Your task to perform on an android device: Open Yahoo.com Image 0: 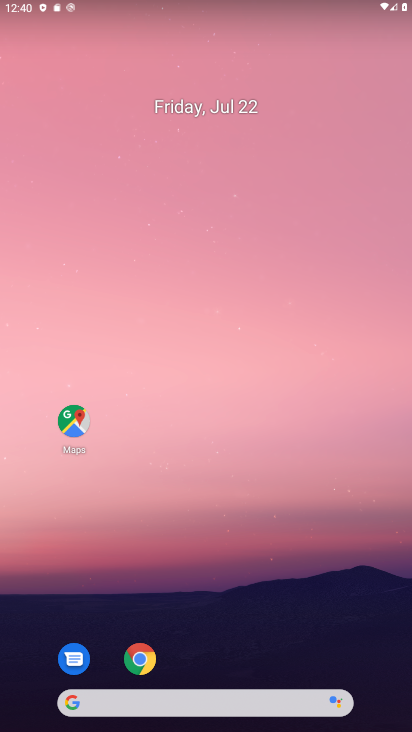
Step 0: click (131, 675)
Your task to perform on an android device: Open Yahoo.com Image 1: 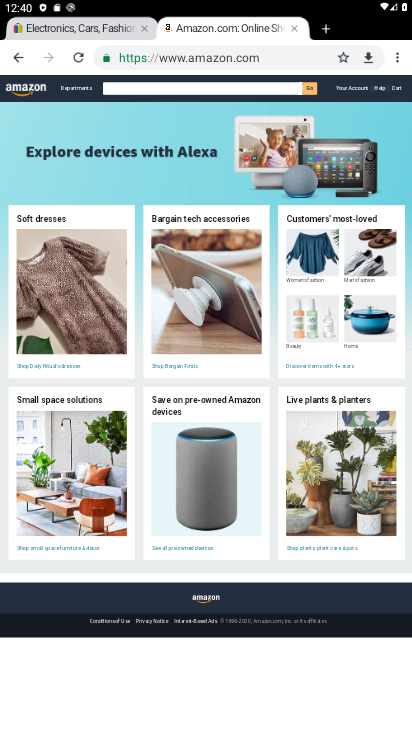
Step 1: click (323, 27)
Your task to perform on an android device: Open Yahoo.com Image 2: 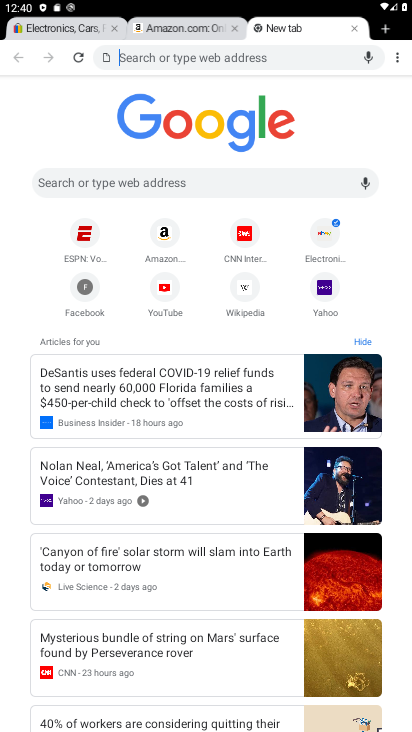
Step 2: type "yahoo.com"
Your task to perform on an android device: Open Yahoo.com Image 3: 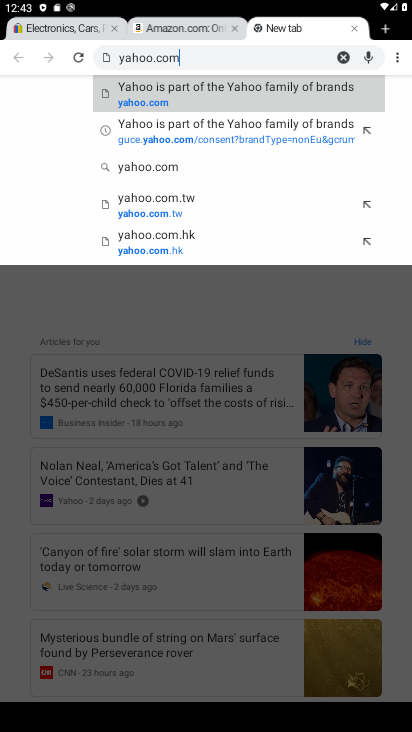
Step 3: click (209, 88)
Your task to perform on an android device: Open Yahoo.com Image 4: 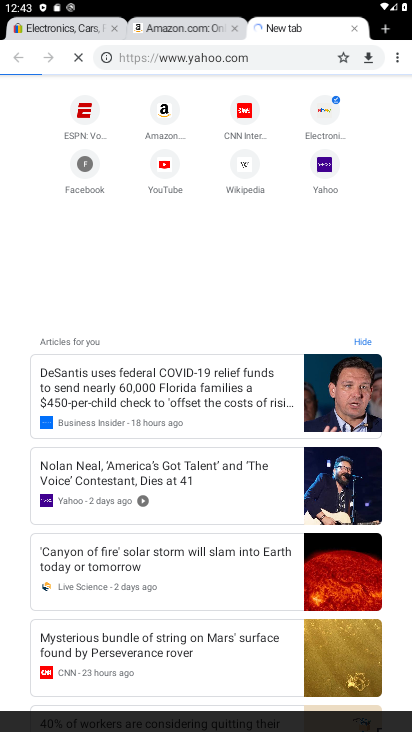
Step 4: task complete